Your task to perform on an android device: Go to CNN.com Image 0: 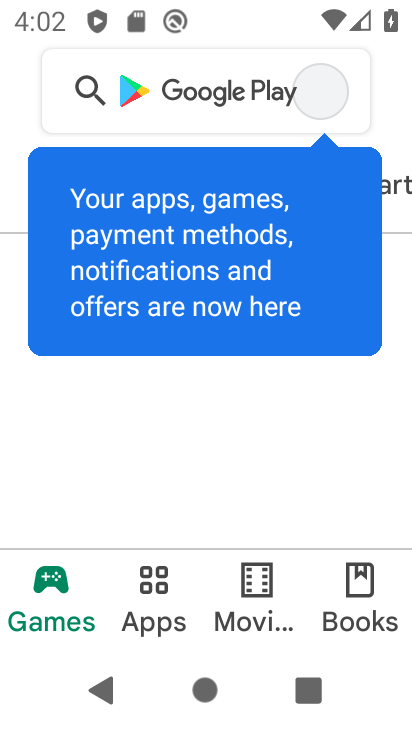
Step 0: press home button
Your task to perform on an android device: Go to CNN.com Image 1: 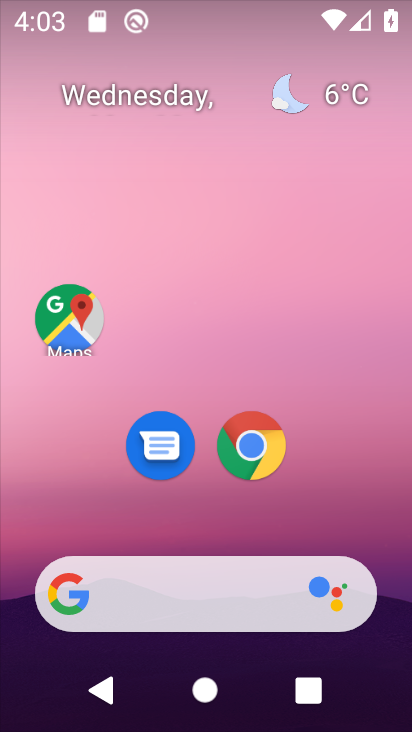
Step 1: click (253, 460)
Your task to perform on an android device: Go to CNN.com Image 2: 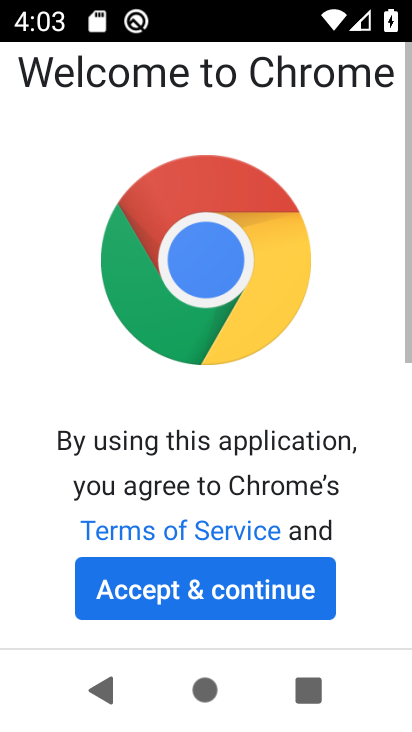
Step 2: click (193, 592)
Your task to perform on an android device: Go to CNN.com Image 3: 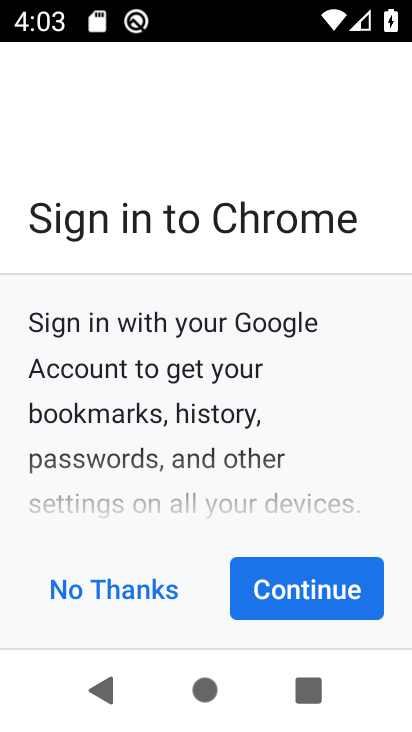
Step 3: click (313, 601)
Your task to perform on an android device: Go to CNN.com Image 4: 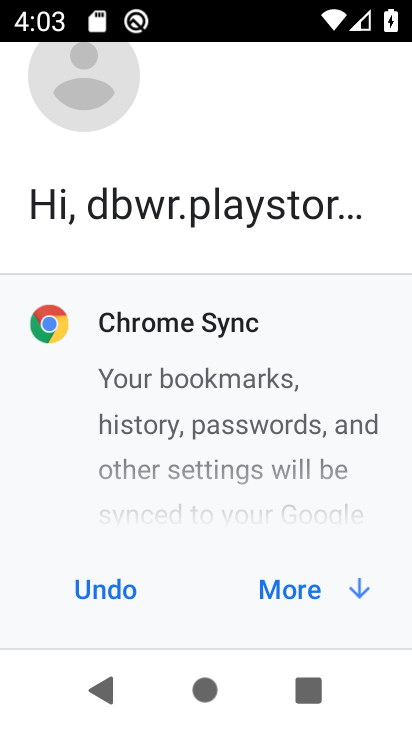
Step 4: click (313, 602)
Your task to perform on an android device: Go to CNN.com Image 5: 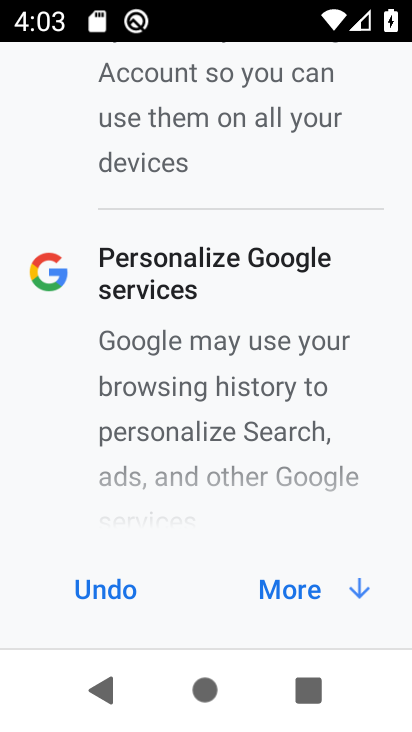
Step 5: click (313, 600)
Your task to perform on an android device: Go to CNN.com Image 6: 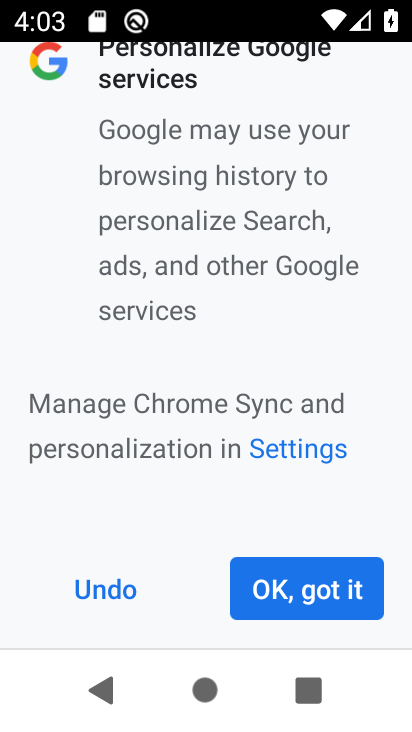
Step 6: click (313, 600)
Your task to perform on an android device: Go to CNN.com Image 7: 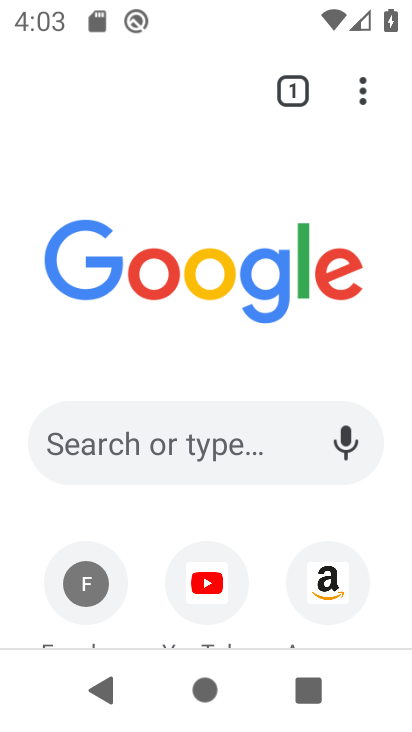
Step 7: click (227, 457)
Your task to perform on an android device: Go to CNN.com Image 8: 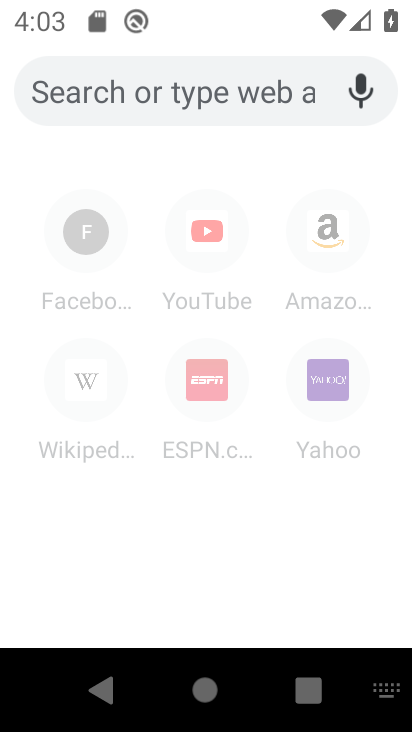
Step 8: type "CNN.com"
Your task to perform on an android device: Go to CNN.com Image 9: 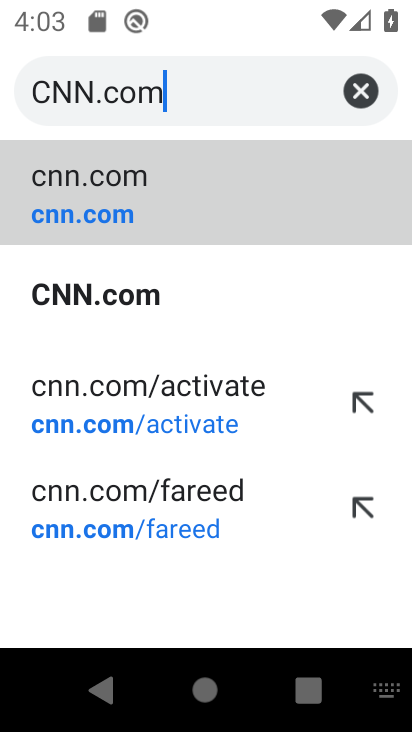
Step 9: click (89, 222)
Your task to perform on an android device: Go to CNN.com Image 10: 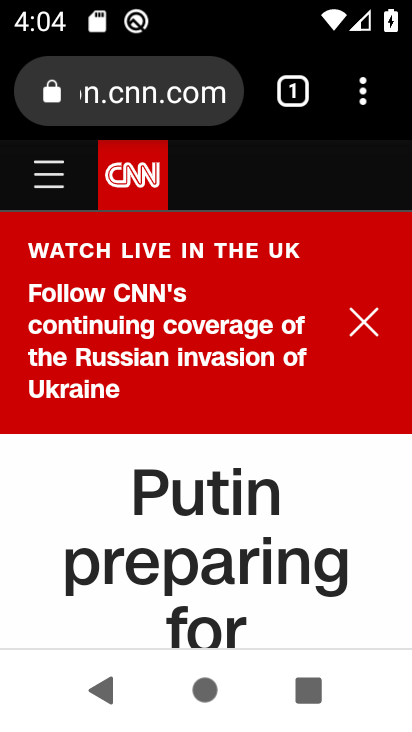
Step 10: task complete